Your task to perform on an android device: Open display settings Image 0: 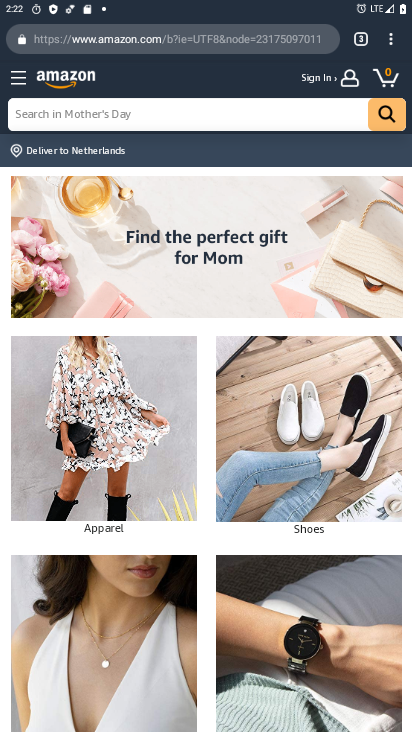
Step 0: press home button
Your task to perform on an android device: Open display settings Image 1: 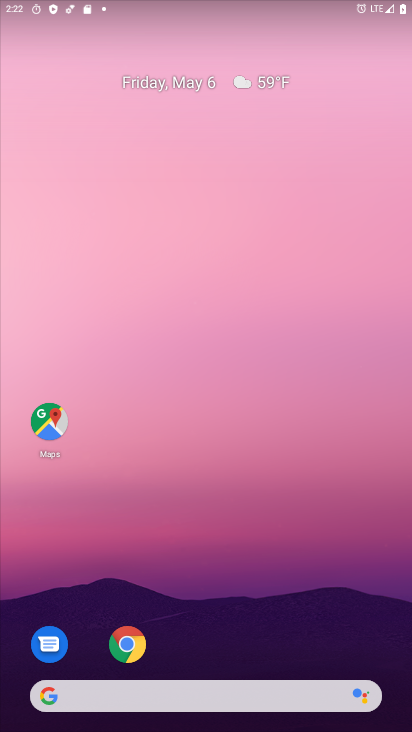
Step 1: drag from (250, 631) to (193, 0)
Your task to perform on an android device: Open display settings Image 2: 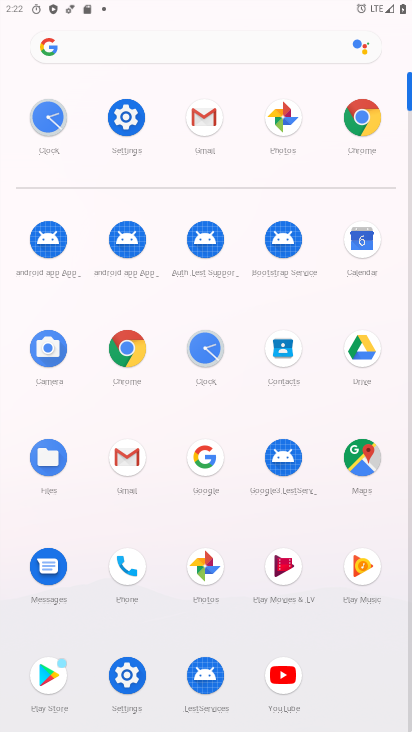
Step 2: click (131, 117)
Your task to perform on an android device: Open display settings Image 3: 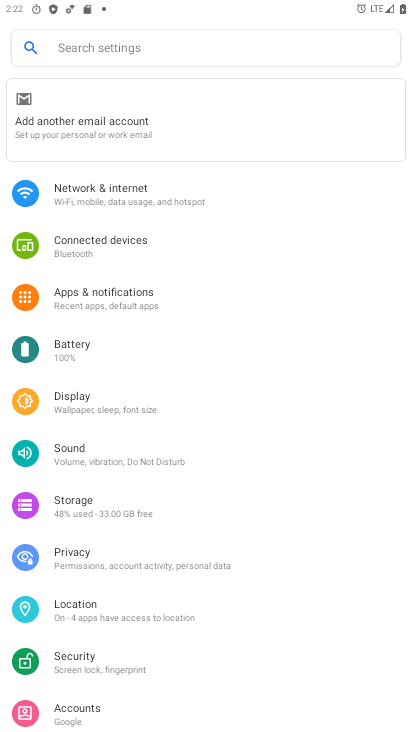
Step 3: click (135, 404)
Your task to perform on an android device: Open display settings Image 4: 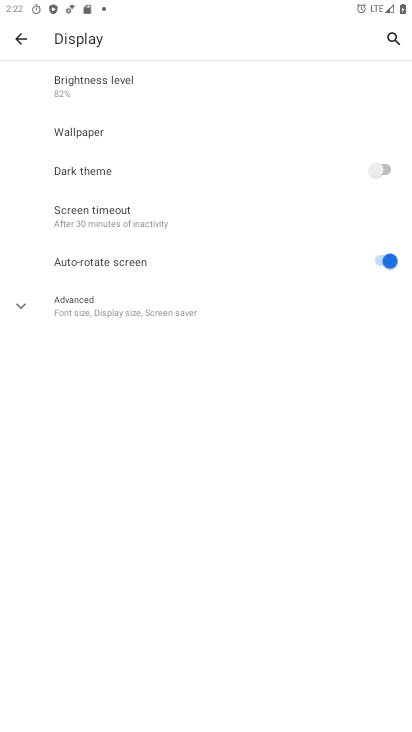
Step 4: task complete